Your task to perform on an android device: Go to ESPN.com Image 0: 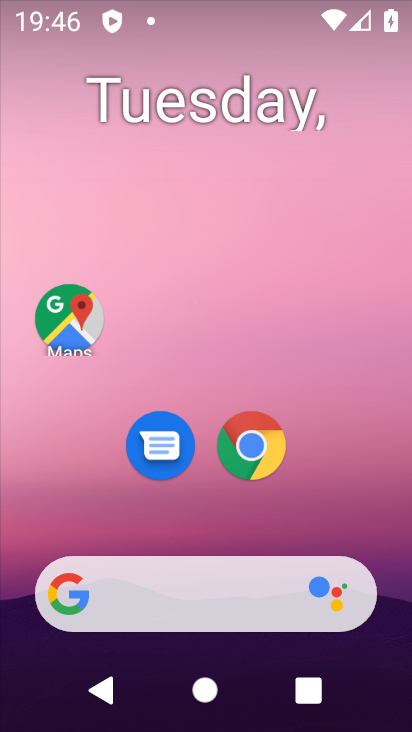
Step 0: click (223, 507)
Your task to perform on an android device: Go to ESPN.com Image 1: 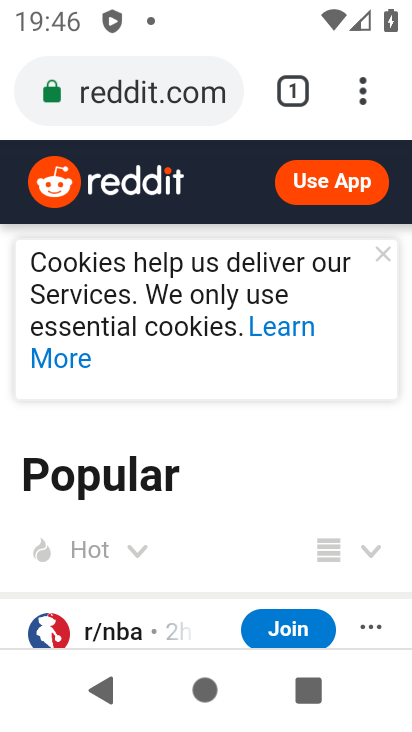
Step 1: click (95, 98)
Your task to perform on an android device: Go to ESPN.com Image 2: 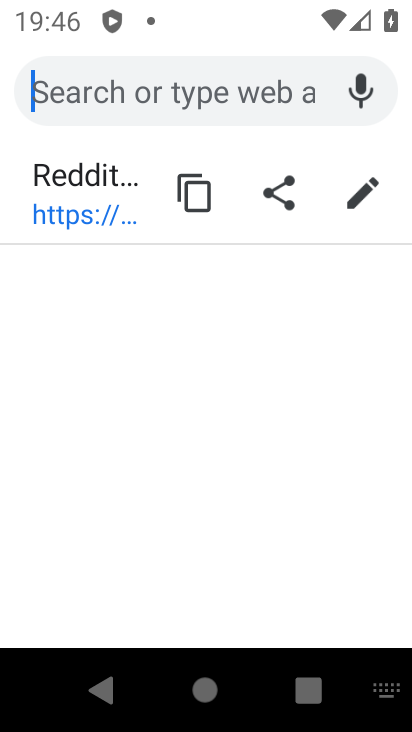
Step 2: type "www.espn.com"
Your task to perform on an android device: Go to ESPN.com Image 3: 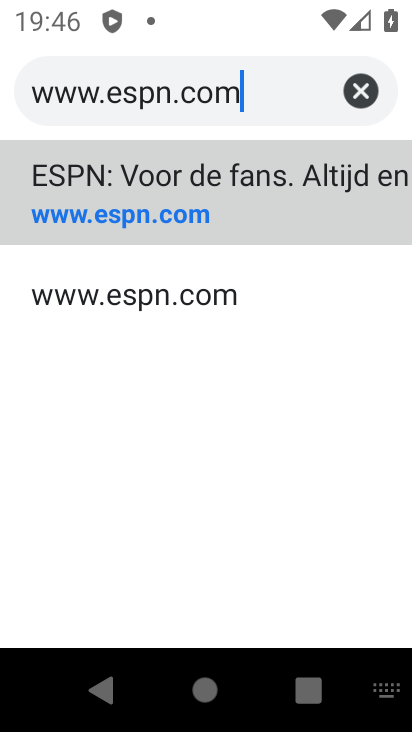
Step 3: click (153, 190)
Your task to perform on an android device: Go to ESPN.com Image 4: 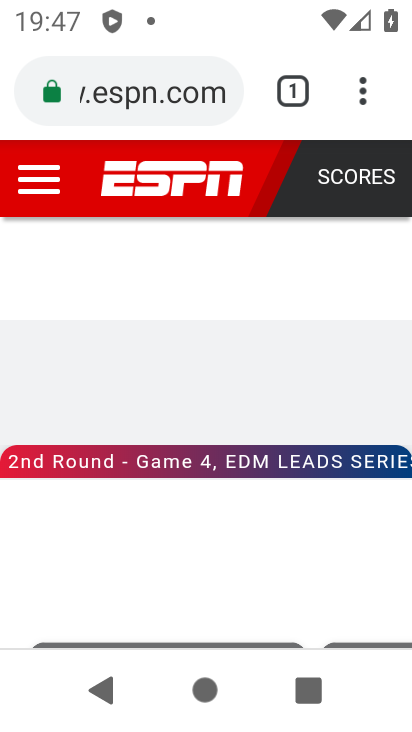
Step 4: task complete